Your task to perform on an android device: toggle location history Image 0: 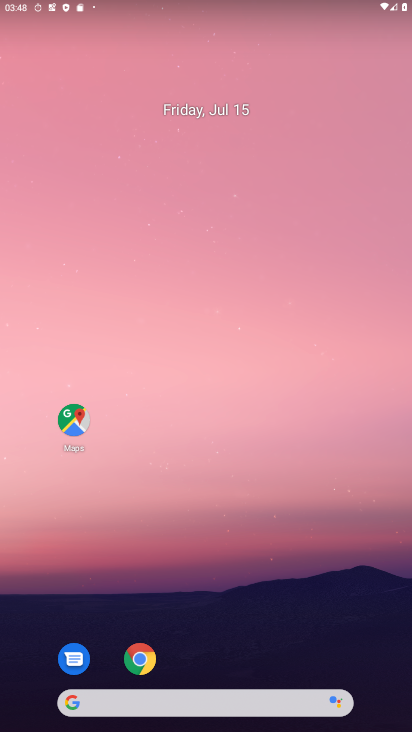
Step 0: drag from (256, 647) to (229, 26)
Your task to perform on an android device: toggle location history Image 1: 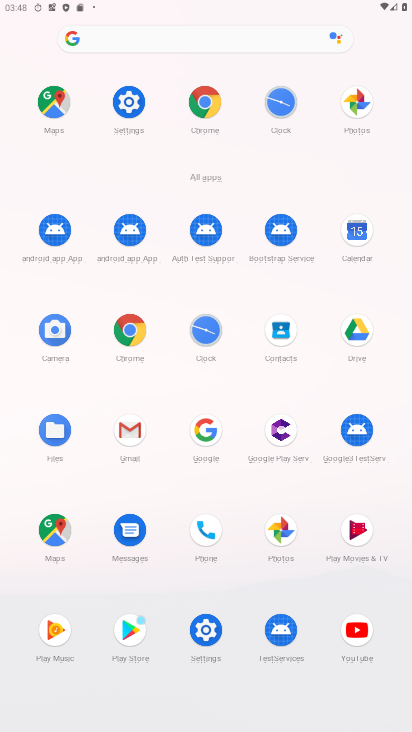
Step 1: click (134, 103)
Your task to perform on an android device: toggle location history Image 2: 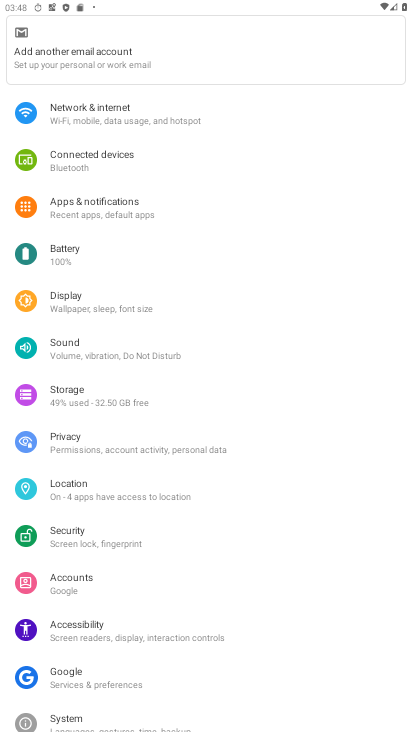
Step 2: click (75, 496)
Your task to perform on an android device: toggle location history Image 3: 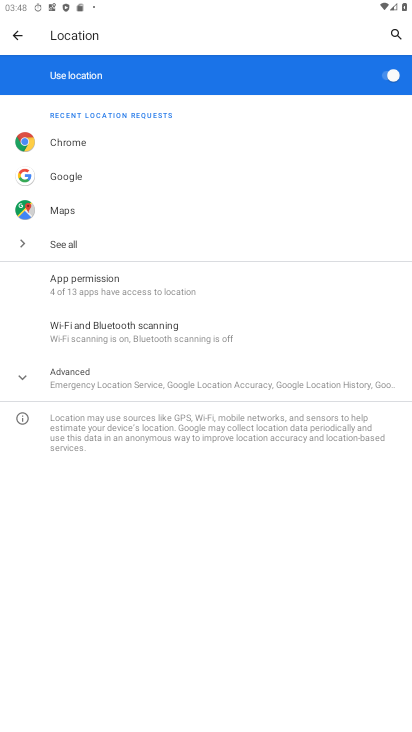
Step 3: click (62, 370)
Your task to perform on an android device: toggle location history Image 4: 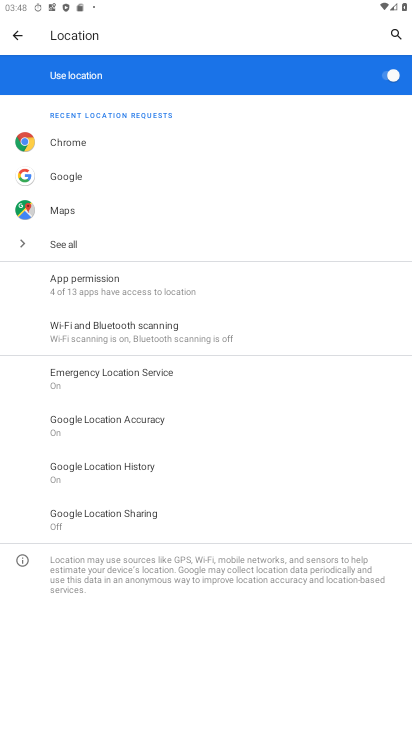
Step 4: click (97, 464)
Your task to perform on an android device: toggle location history Image 5: 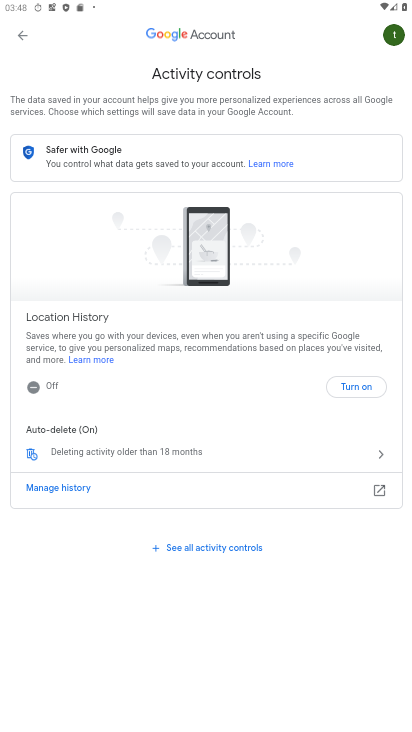
Step 5: click (359, 386)
Your task to perform on an android device: toggle location history Image 6: 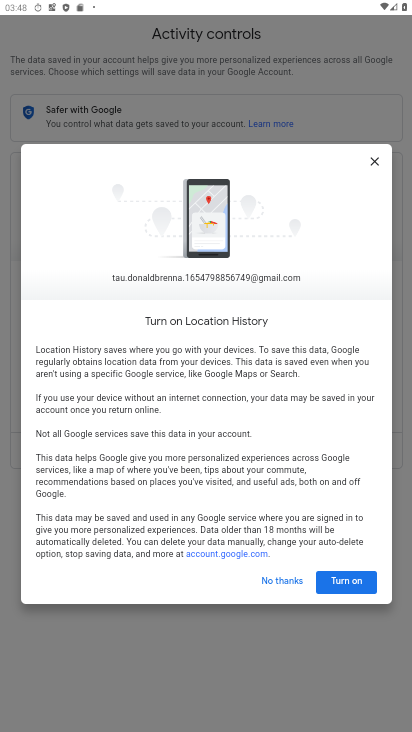
Step 6: click (348, 583)
Your task to perform on an android device: toggle location history Image 7: 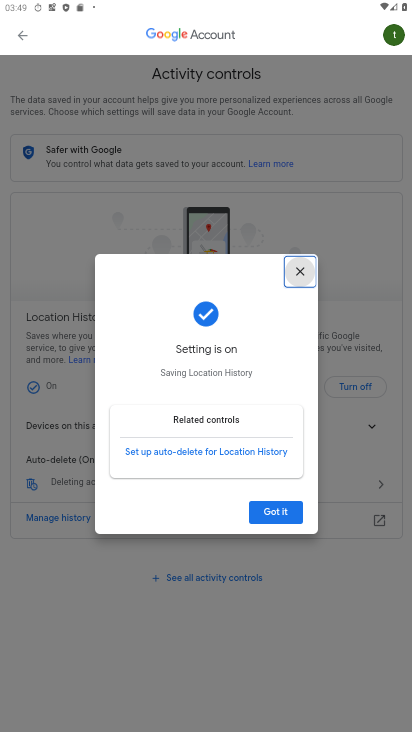
Step 7: click (266, 519)
Your task to perform on an android device: toggle location history Image 8: 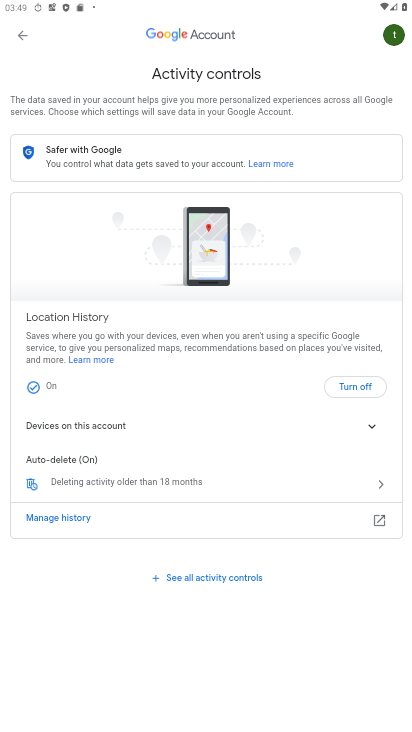
Step 8: task complete